Your task to perform on an android device: empty trash in the gmail app Image 0: 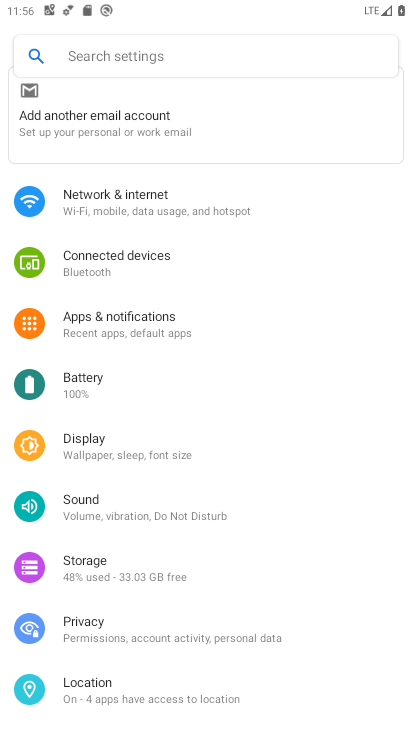
Step 0: press home button
Your task to perform on an android device: empty trash in the gmail app Image 1: 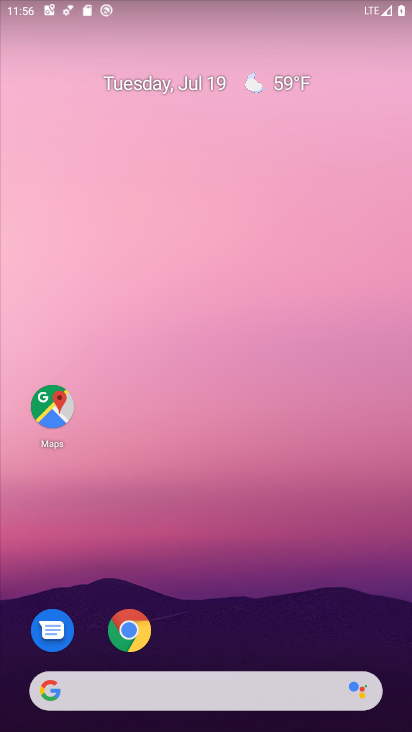
Step 1: drag from (354, 560) to (312, 132)
Your task to perform on an android device: empty trash in the gmail app Image 2: 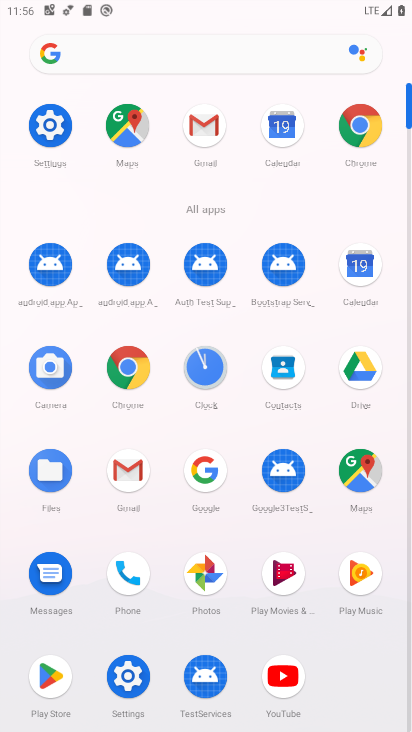
Step 2: click (125, 471)
Your task to perform on an android device: empty trash in the gmail app Image 3: 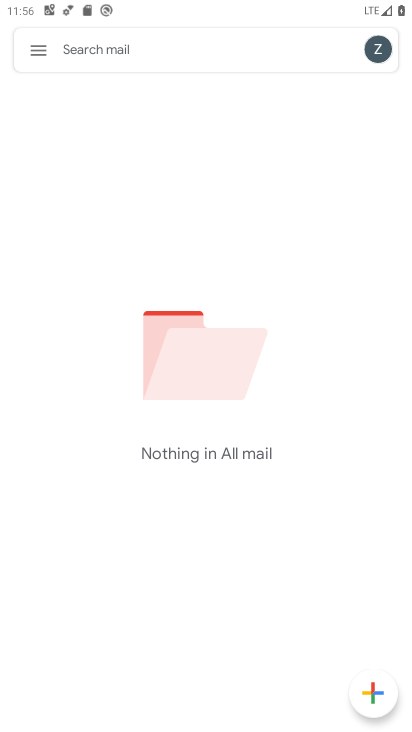
Step 3: click (35, 44)
Your task to perform on an android device: empty trash in the gmail app Image 4: 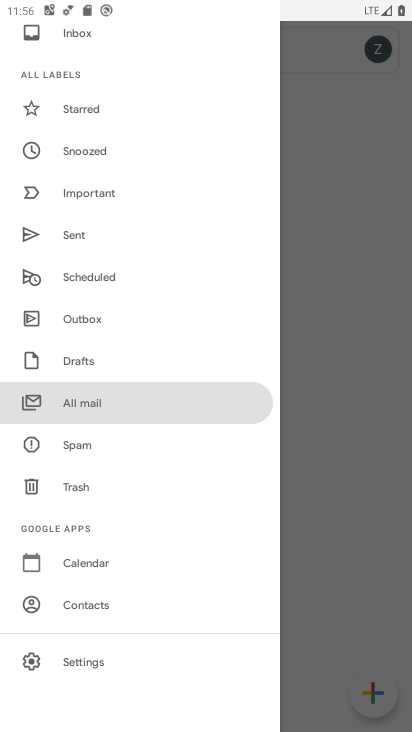
Step 4: click (78, 481)
Your task to perform on an android device: empty trash in the gmail app Image 5: 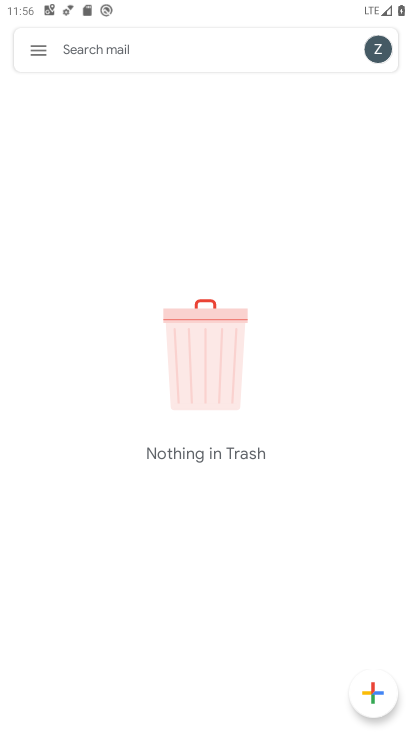
Step 5: task complete